Your task to perform on an android device: Check the weather Image 0: 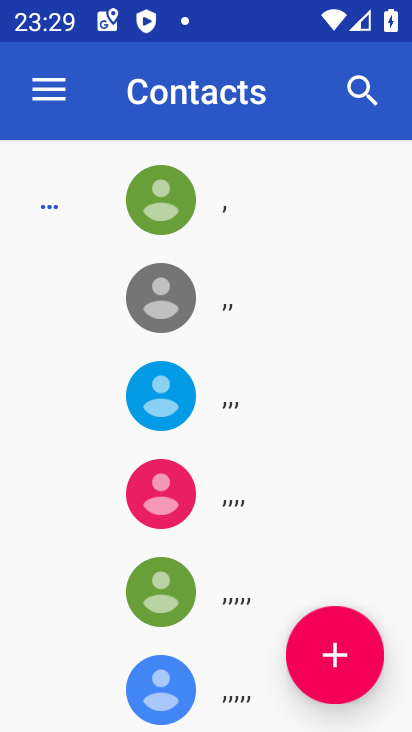
Step 0: press home button
Your task to perform on an android device: Check the weather Image 1: 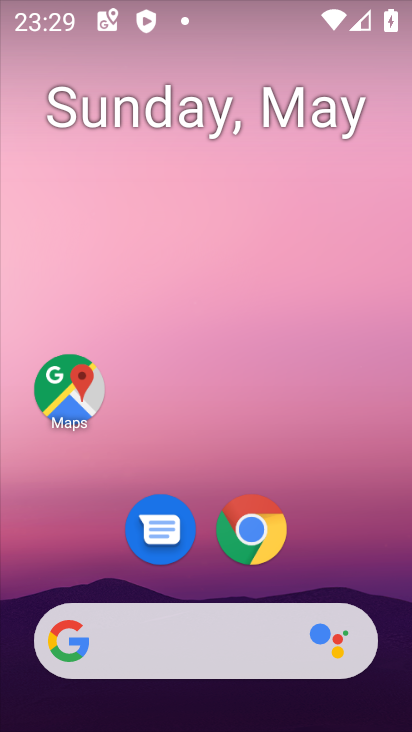
Step 1: click (205, 660)
Your task to perform on an android device: Check the weather Image 2: 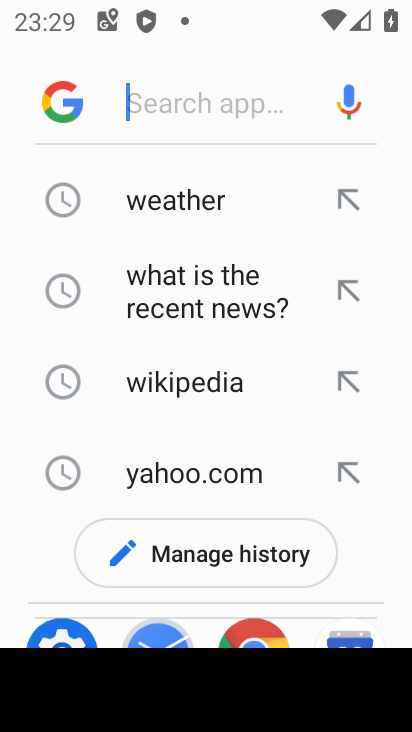
Step 2: click (186, 214)
Your task to perform on an android device: Check the weather Image 3: 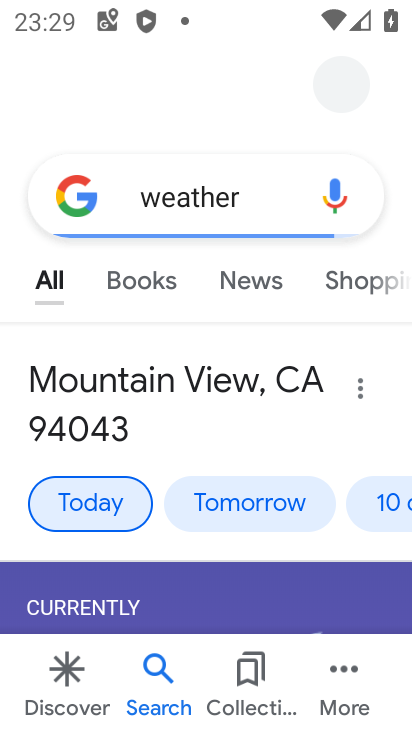
Step 3: task complete